Your task to perform on an android device: Show me productivity apps on the Play Store Image 0: 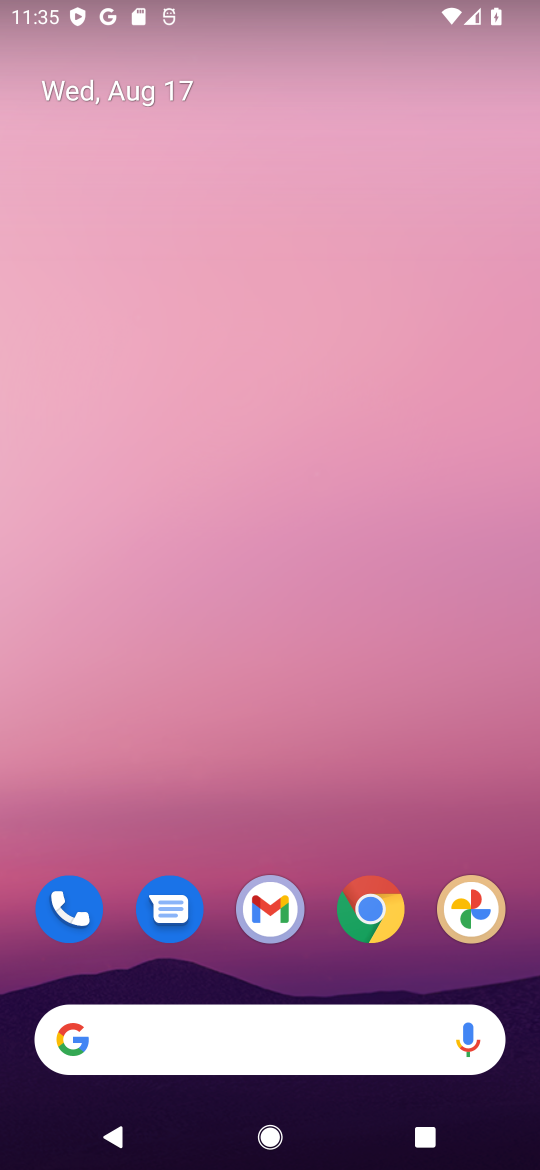
Step 0: drag from (308, 830) to (257, 121)
Your task to perform on an android device: Show me productivity apps on the Play Store Image 1: 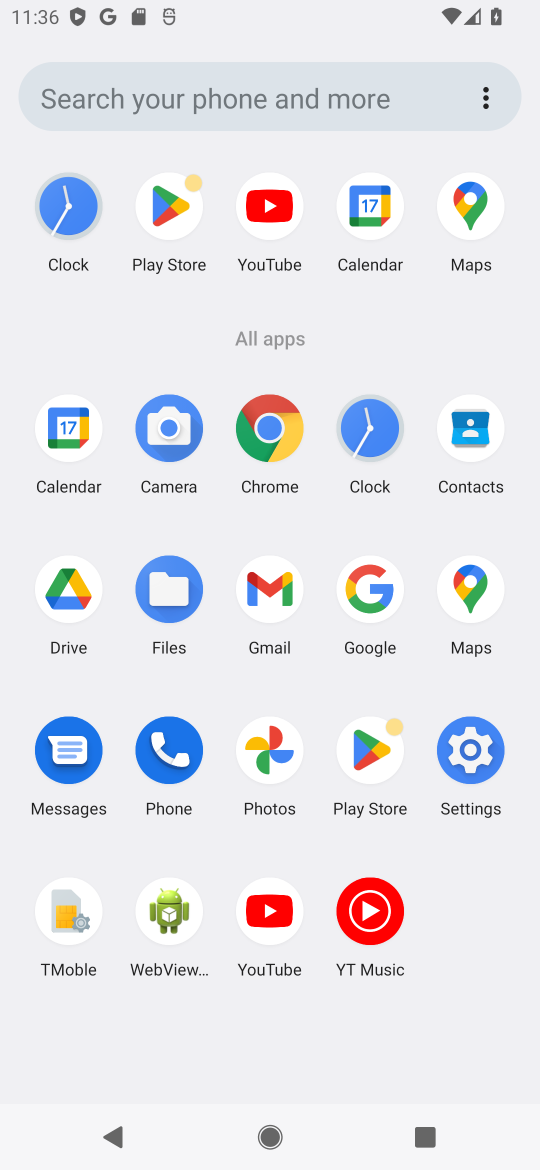
Step 1: click (169, 208)
Your task to perform on an android device: Show me productivity apps on the Play Store Image 2: 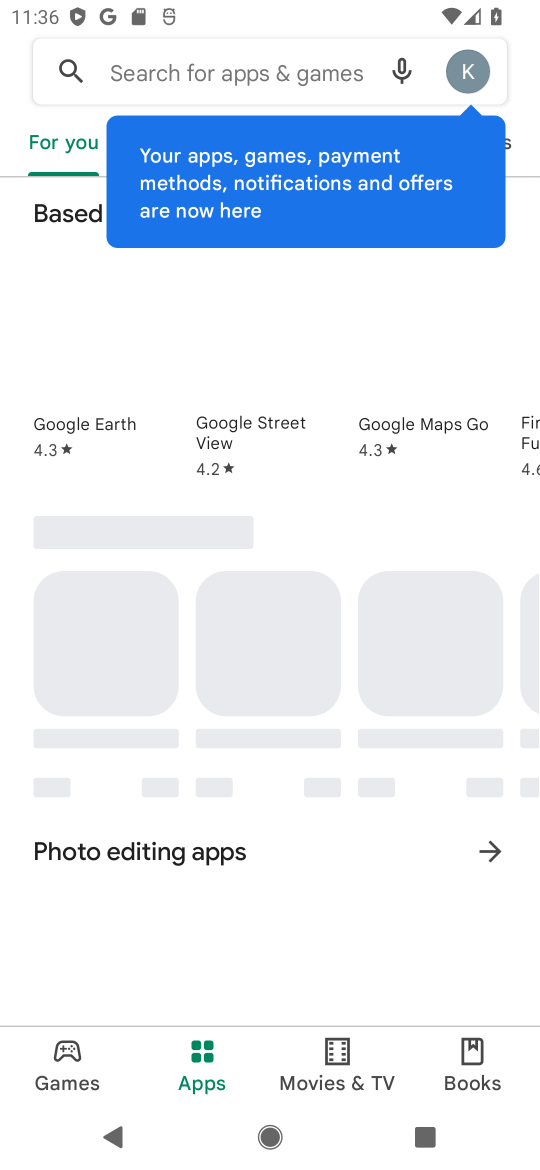
Step 2: click (199, 1063)
Your task to perform on an android device: Show me productivity apps on the Play Store Image 3: 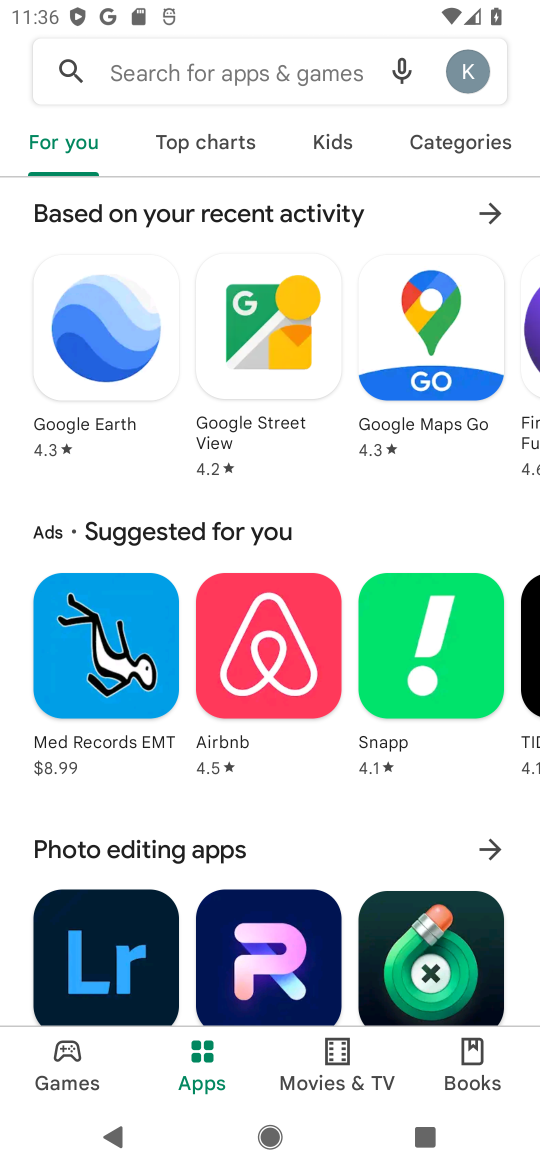
Step 3: task complete